Your task to perform on an android device: check data usage Image 0: 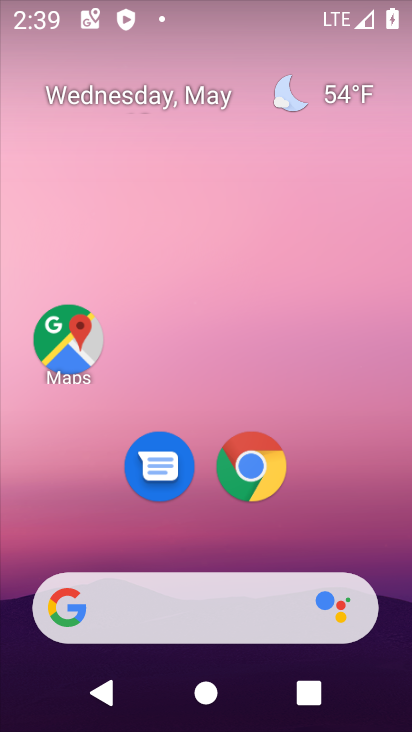
Step 0: drag from (341, 488) to (300, 247)
Your task to perform on an android device: check data usage Image 1: 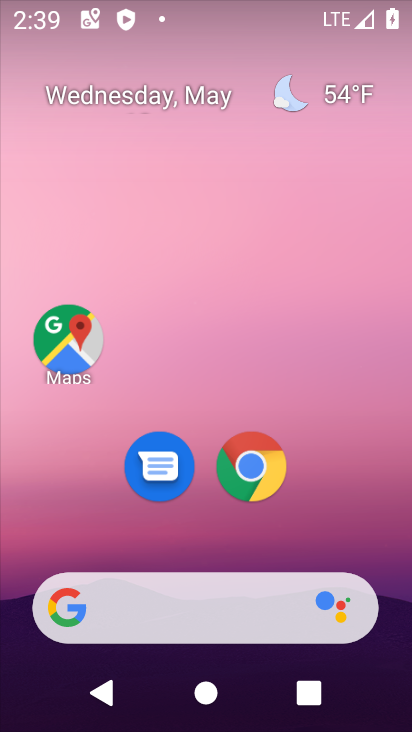
Step 1: drag from (395, 598) to (289, 257)
Your task to perform on an android device: check data usage Image 2: 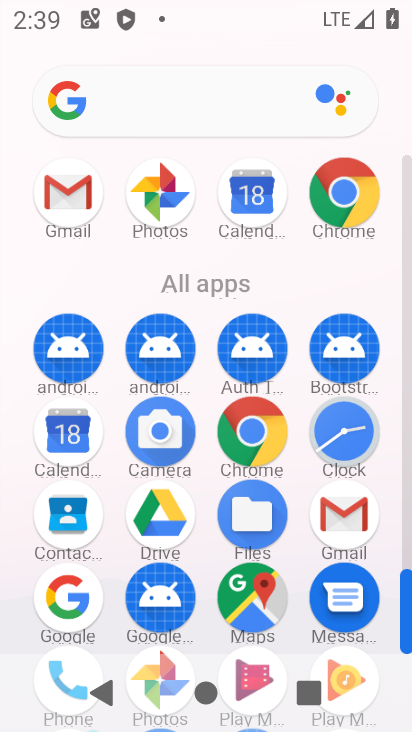
Step 2: drag from (390, 559) to (390, 389)
Your task to perform on an android device: check data usage Image 3: 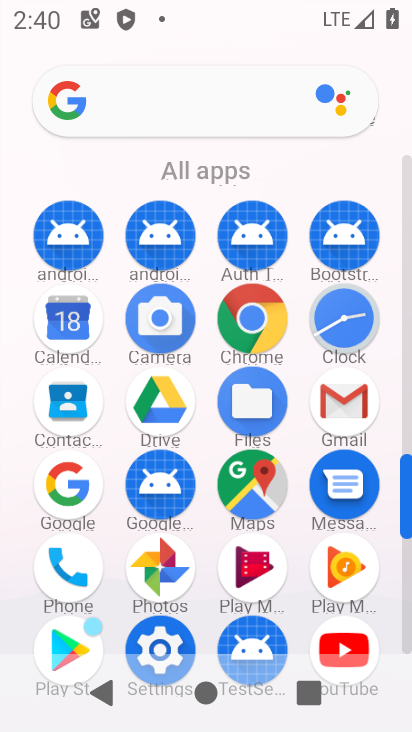
Step 3: click (158, 627)
Your task to perform on an android device: check data usage Image 4: 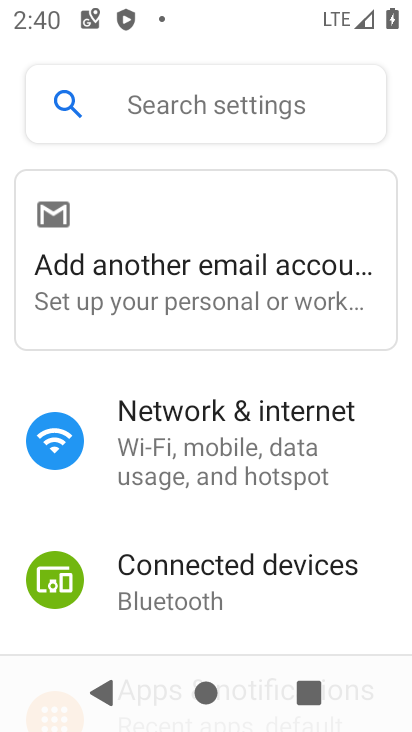
Step 4: click (273, 428)
Your task to perform on an android device: check data usage Image 5: 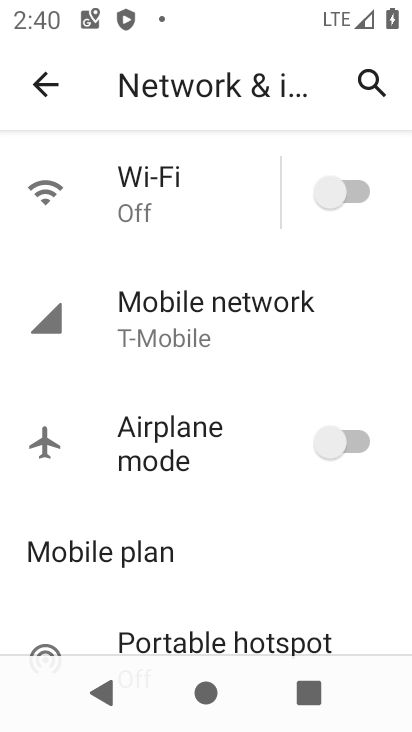
Step 5: click (208, 212)
Your task to perform on an android device: check data usage Image 6: 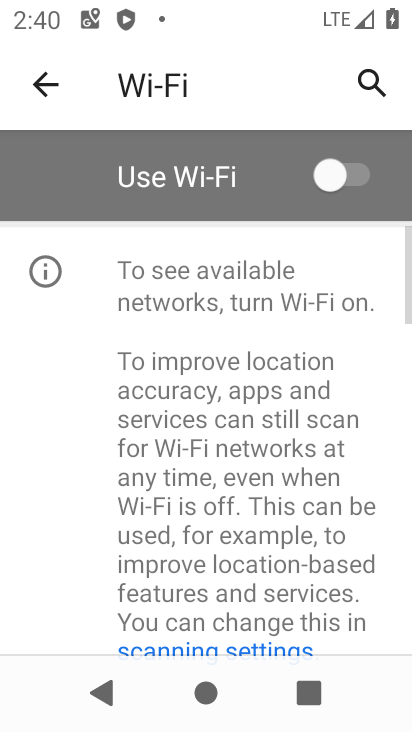
Step 6: drag from (279, 525) to (219, 84)
Your task to perform on an android device: check data usage Image 7: 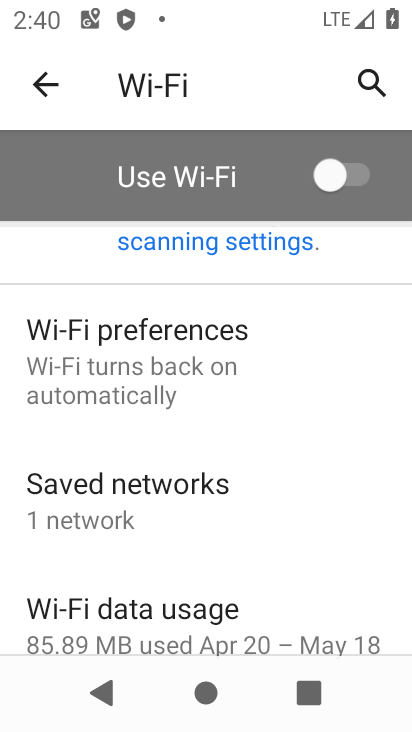
Step 7: click (279, 603)
Your task to perform on an android device: check data usage Image 8: 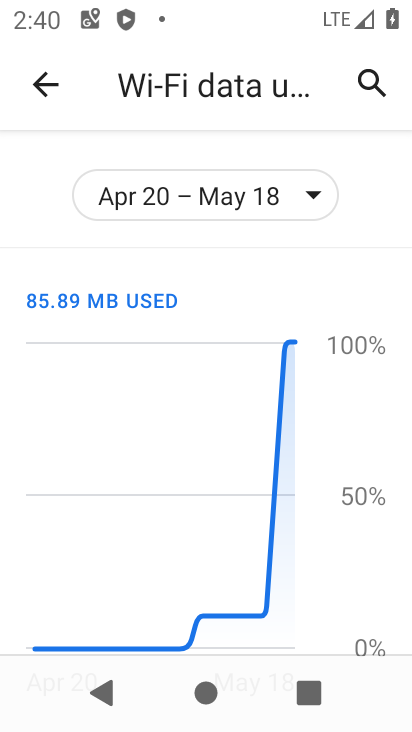
Step 8: task complete